Your task to perform on an android device: Search for "jbl flip 4" on walmart.com, select the first entry, and add it to the cart. Image 0: 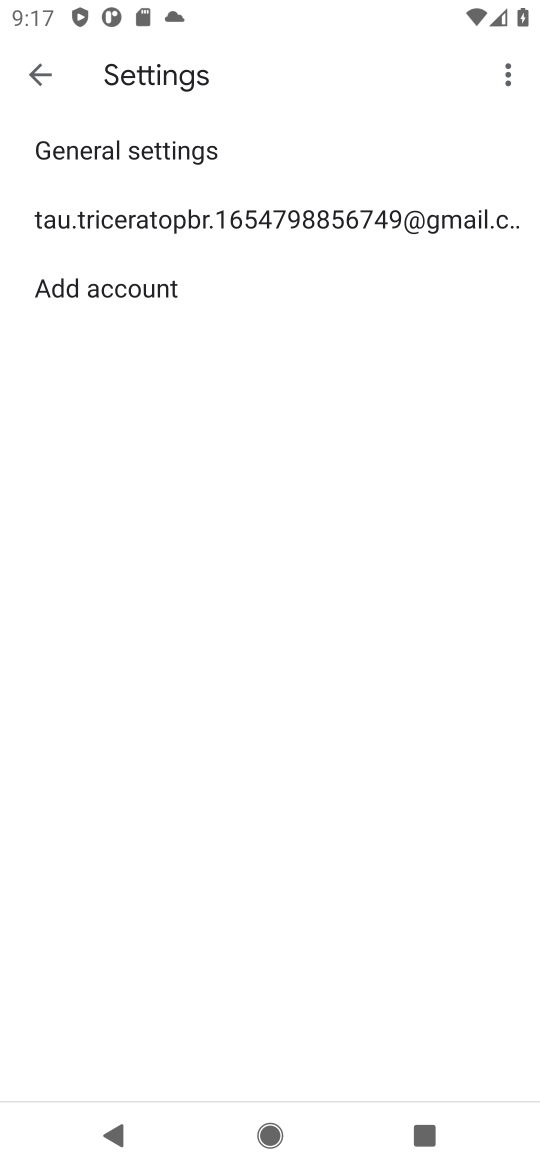
Step 0: press home button
Your task to perform on an android device: Search for "jbl flip 4" on walmart.com, select the first entry, and add it to the cart. Image 1: 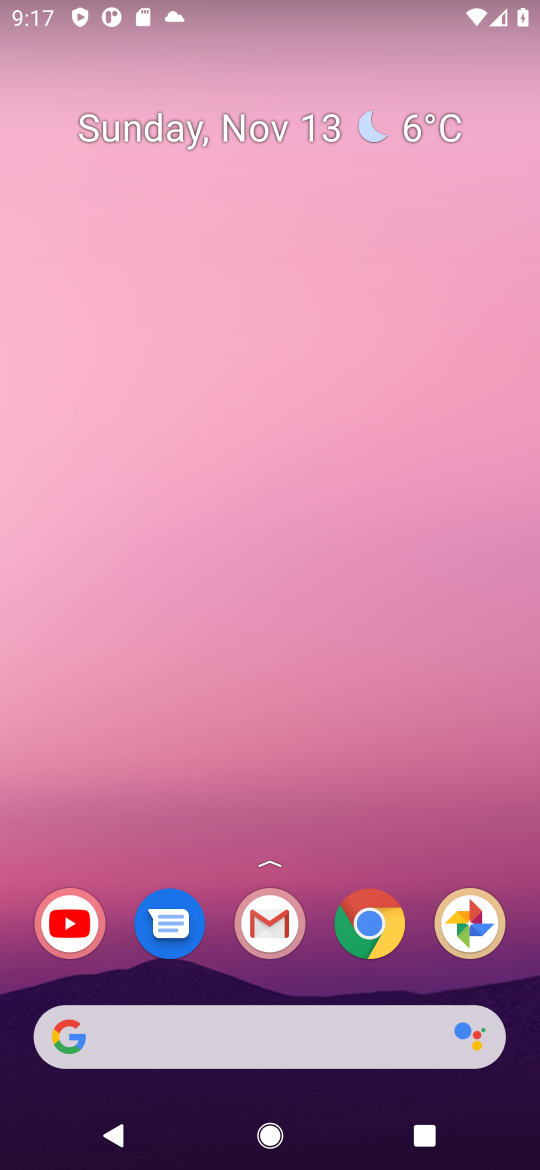
Step 1: click (371, 926)
Your task to perform on an android device: Search for "jbl flip 4" on walmart.com, select the first entry, and add it to the cart. Image 2: 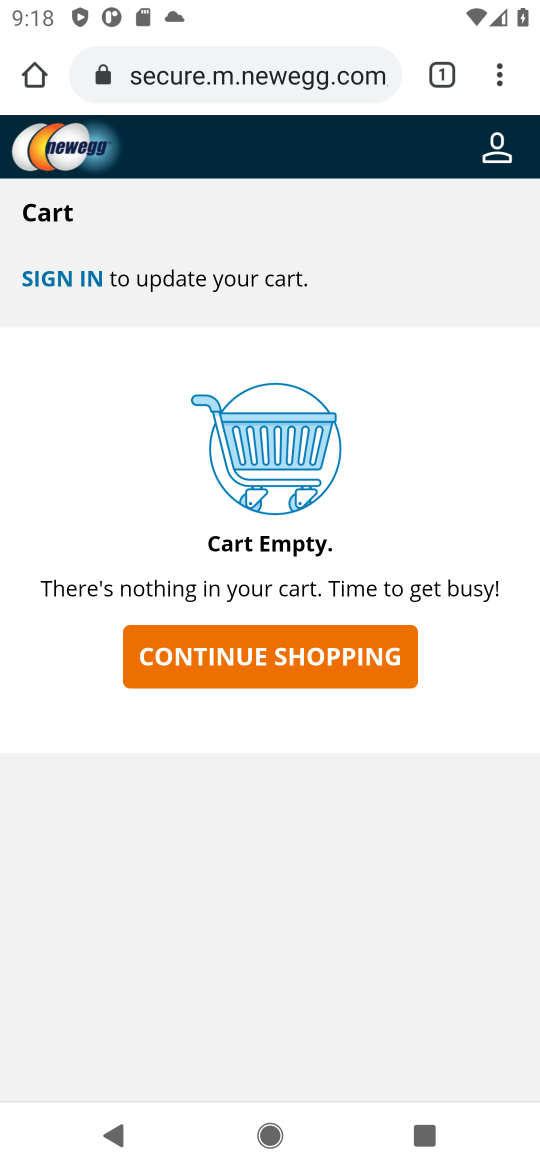
Step 2: click (321, 61)
Your task to perform on an android device: Search for "jbl flip 4" on walmart.com, select the first entry, and add it to the cart. Image 3: 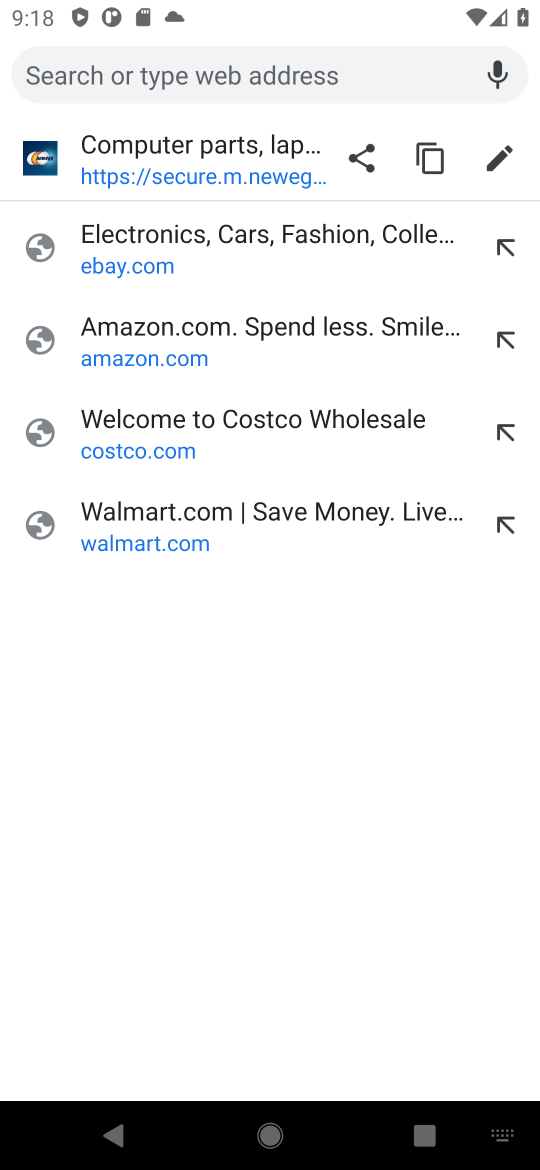
Step 3: click (225, 509)
Your task to perform on an android device: Search for "jbl flip 4" on walmart.com, select the first entry, and add it to the cart. Image 4: 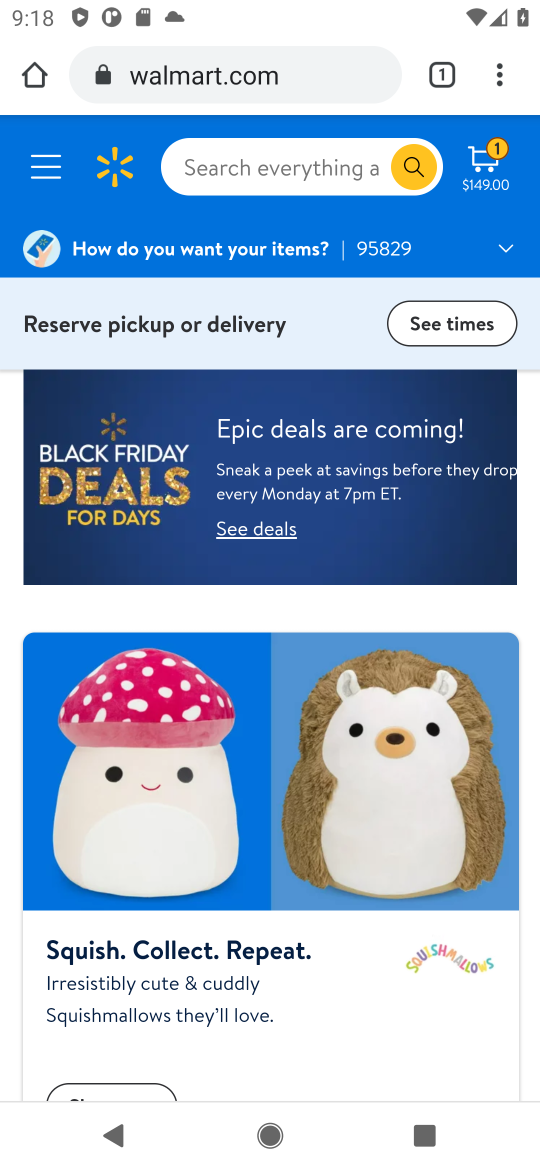
Step 4: click (319, 150)
Your task to perform on an android device: Search for "jbl flip 4" on walmart.com, select the first entry, and add it to the cart. Image 5: 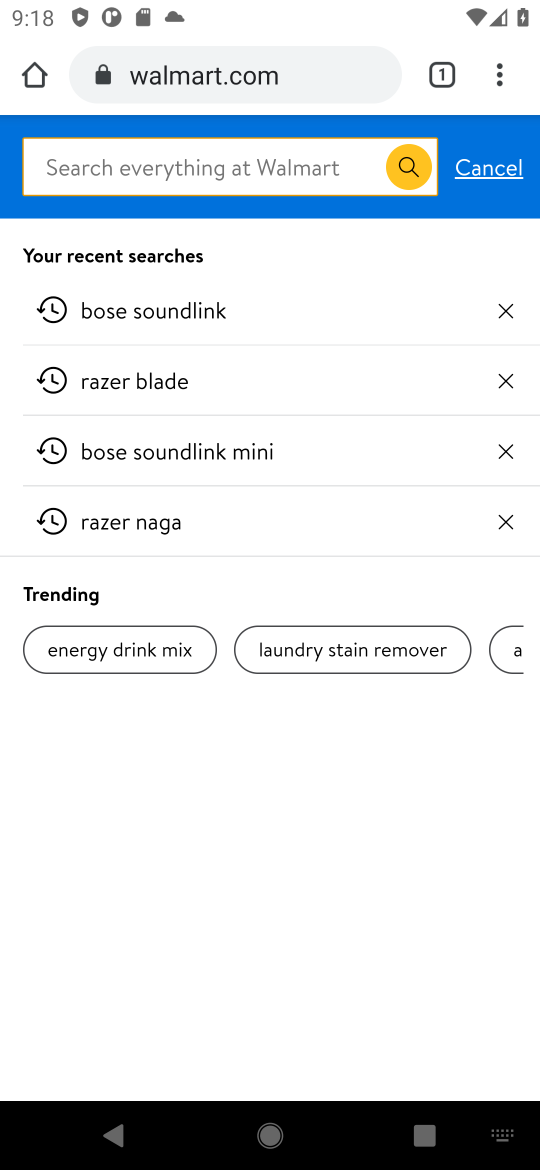
Step 5: type "jbl flip 4"
Your task to perform on an android device: Search for "jbl flip 4" on walmart.com, select the first entry, and add it to the cart. Image 6: 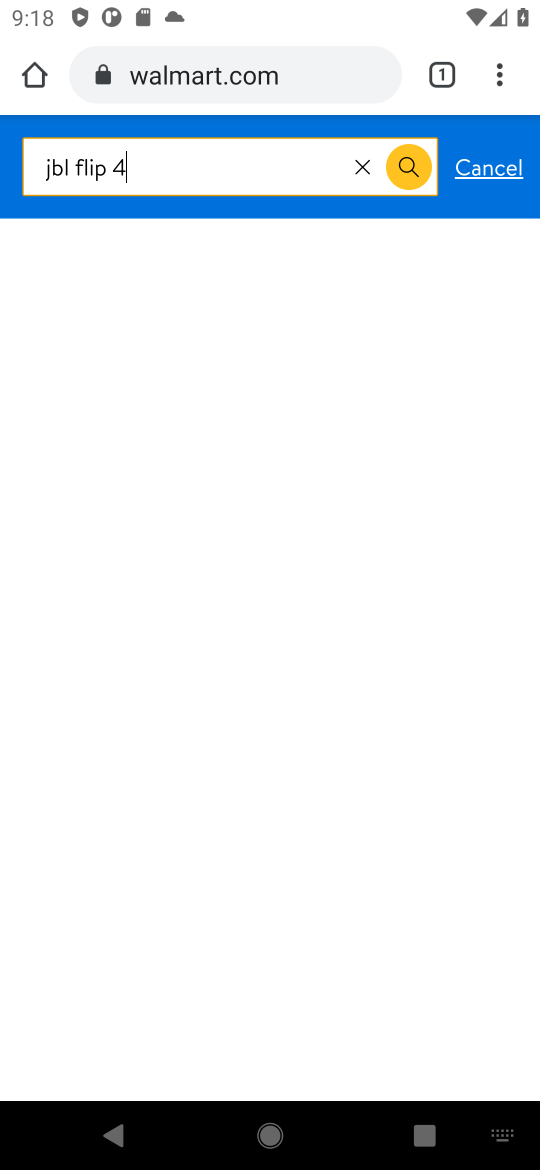
Step 6: press enter
Your task to perform on an android device: Search for "jbl flip 4" on walmart.com, select the first entry, and add it to the cart. Image 7: 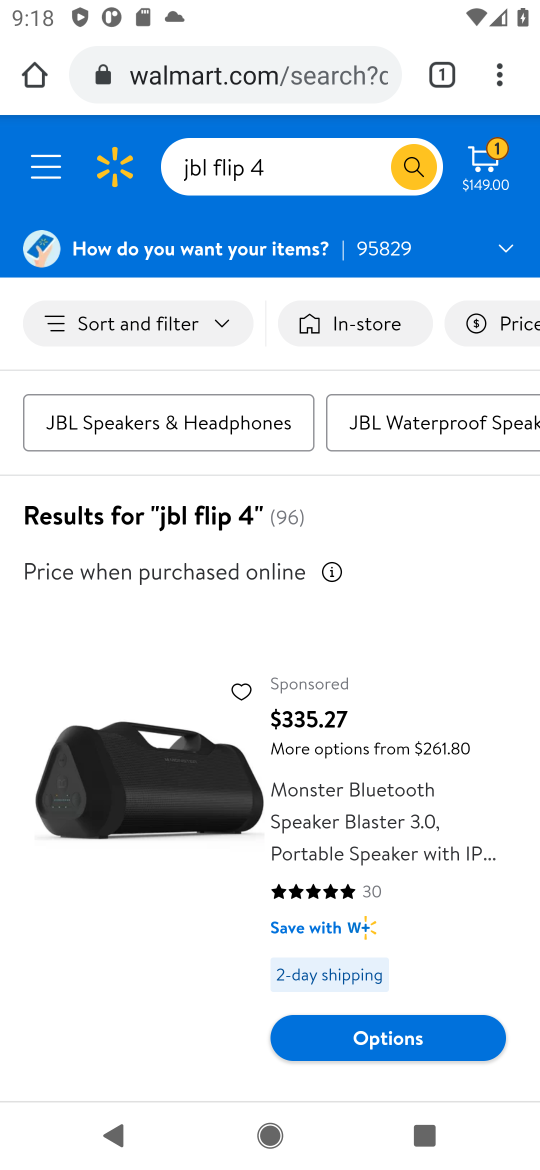
Step 7: drag from (428, 943) to (490, 286)
Your task to perform on an android device: Search for "jbl flip 4" on walmart.com, select the first entry, and add it to the cart. Image 8: 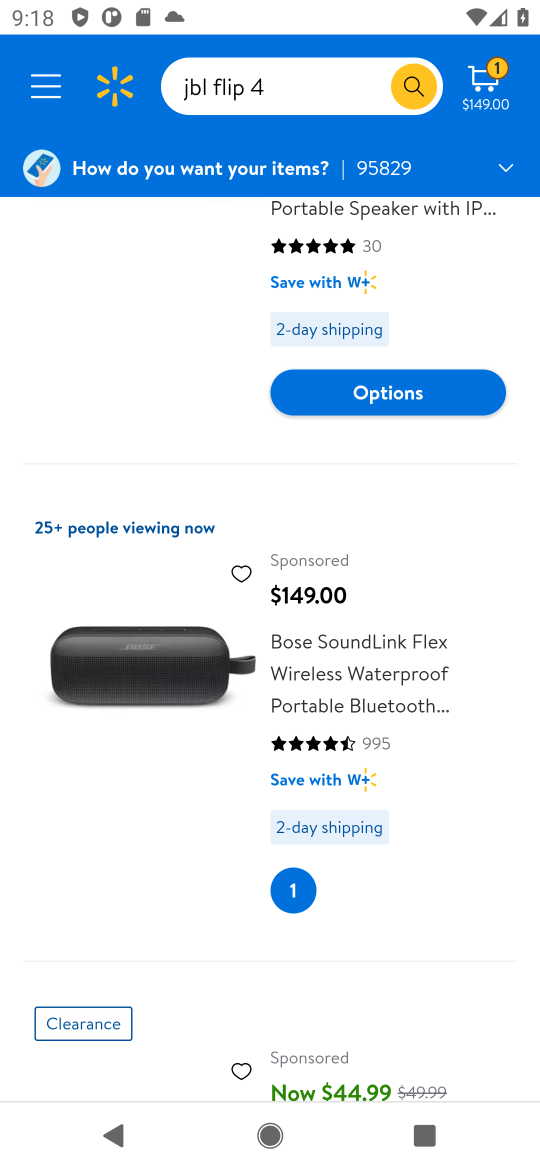
Step 8: drag from (455, 837) to (472, 271)
Your task to perform on an android device: Search for "jbl flip 4" on walmart.com, select the first entry, and add it to the cart. Image 9: 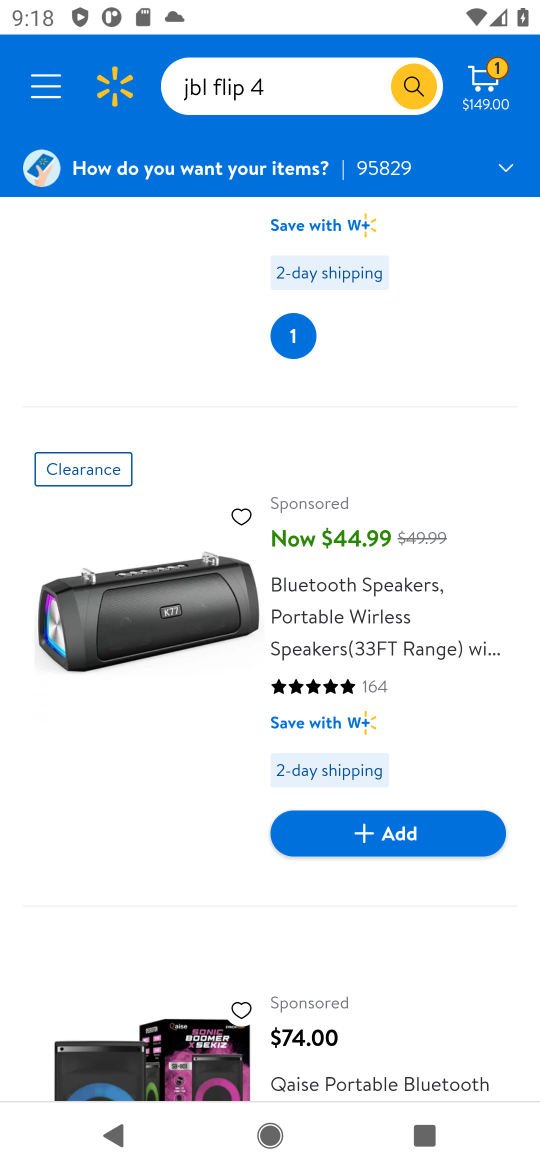
Step 9: drag from (461, 905) to (440, 424)
Your task to perform on an android device: Search for "jbl flip 4" on walmart.com, select the first entry, and add it to the cart. Image 10: 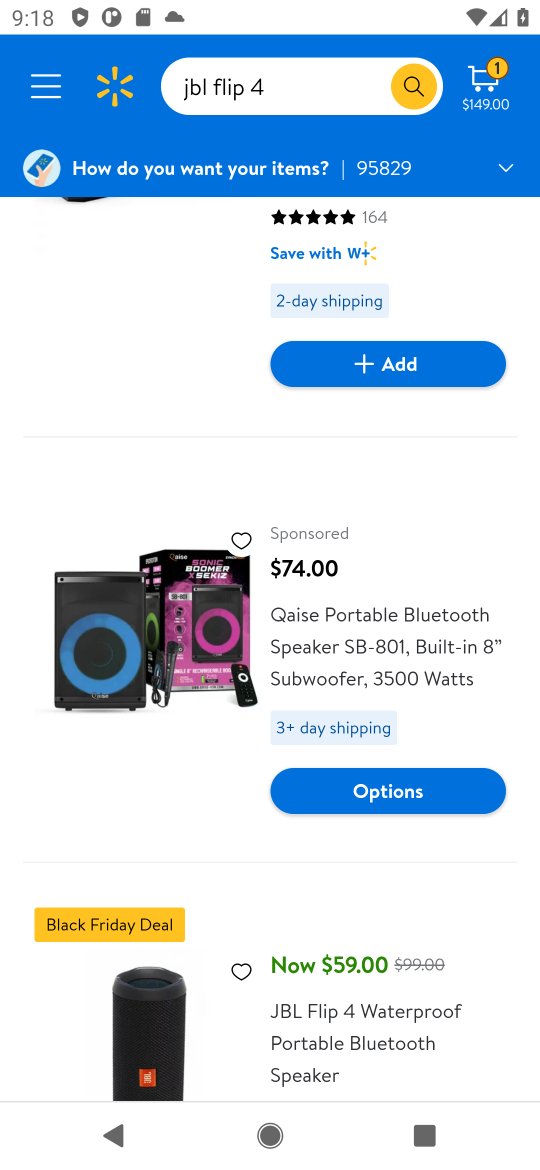
Step 10: drag from (459, 792) to (449, 558)
Your task to perform on an android device: Search for "jbl flip 4" on walmart.com, select the first entry, and add it to the cart. Image 11: 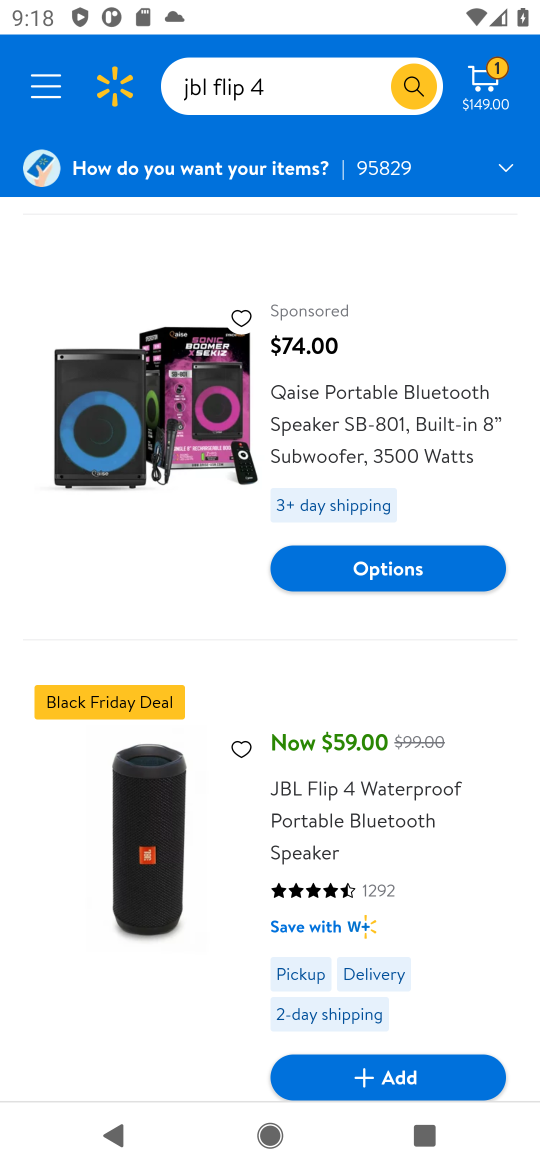
Step 11: click (130, 858)
Your task to perform on an android device: Search for "jbl flip 4" on walmart.com, select the first entry, and add it to the cart. Image 12: 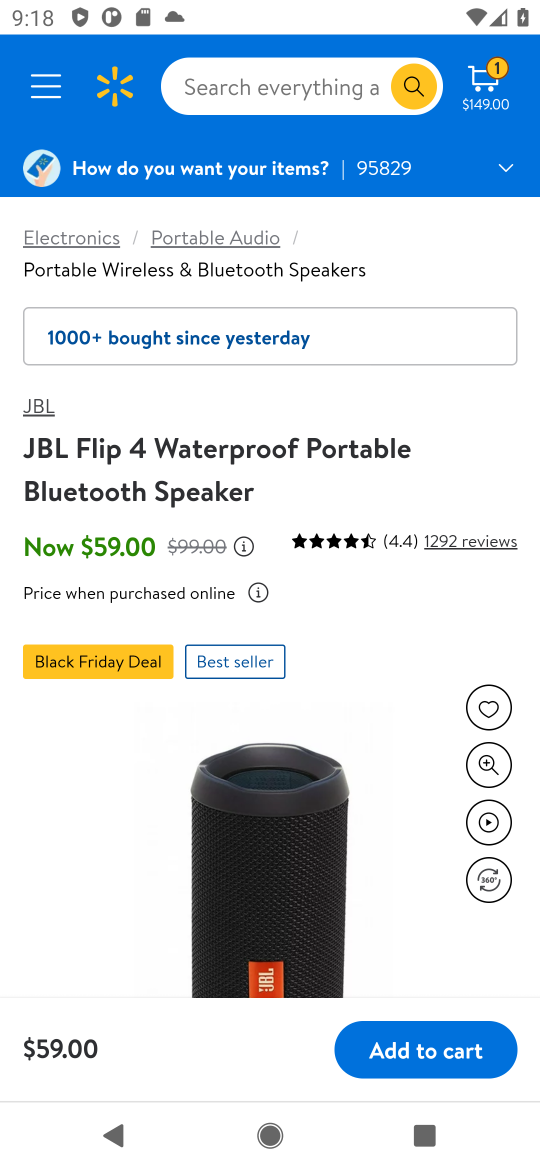
Step 12: click (437, 1048)
Your task to perform on an android device: Search for "jbl flip 4" on walmart.com, select the first entry, and add it to the cart. Image 13: 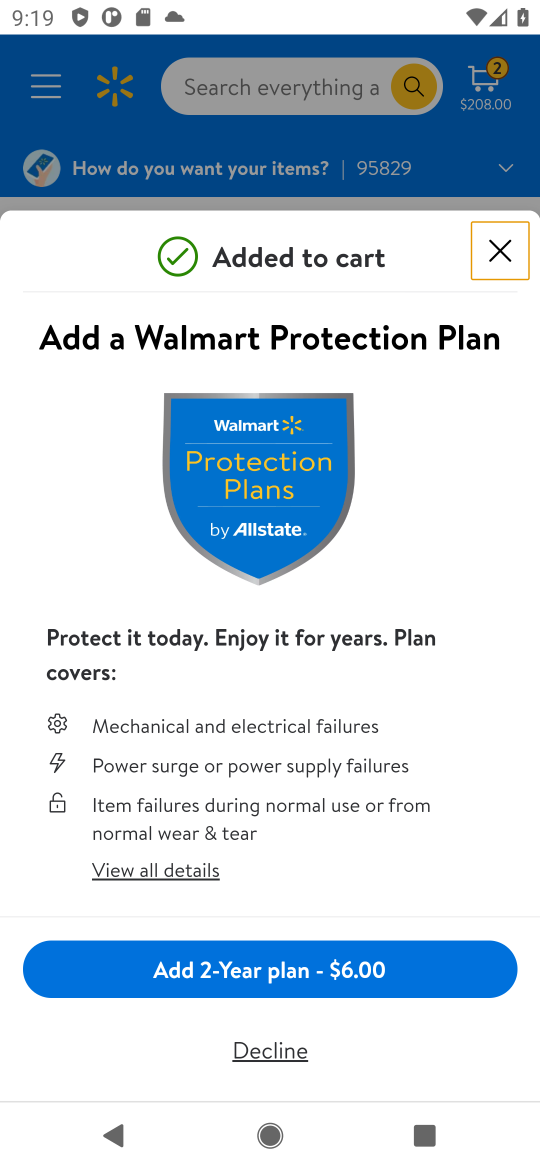
Step 13: task complete